Your task to perform on an android device: Go to Yahoo.com Image 0: 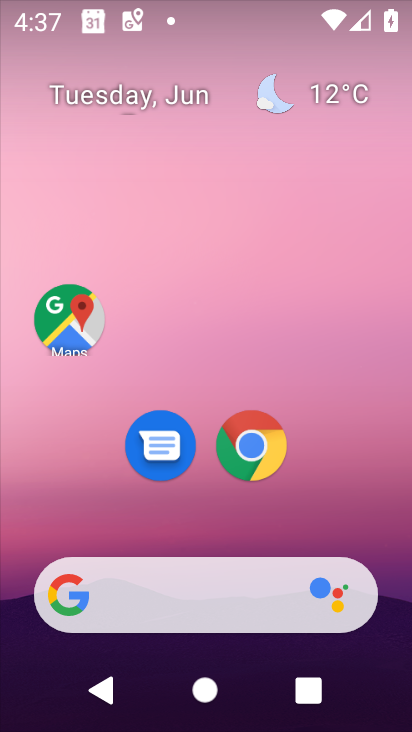
Step 0: drag from (326, 499) to (339, 3)
Your task to perform on an android device: Go to Yahoo.com Image 1: 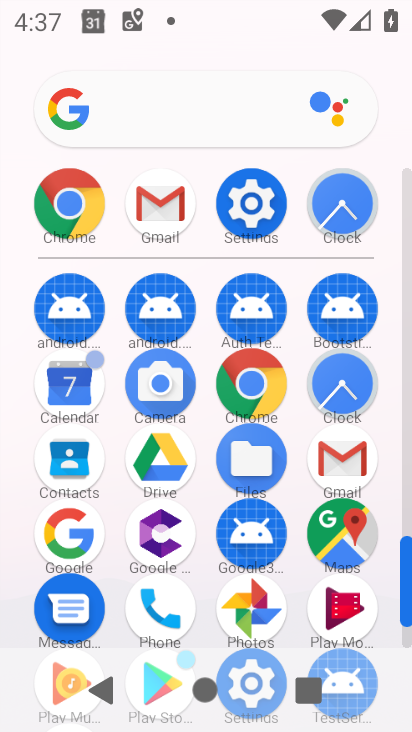
Step 1: click (75, 211)
Your task to perform on an android device: Go to Yahoo.com Image 2: 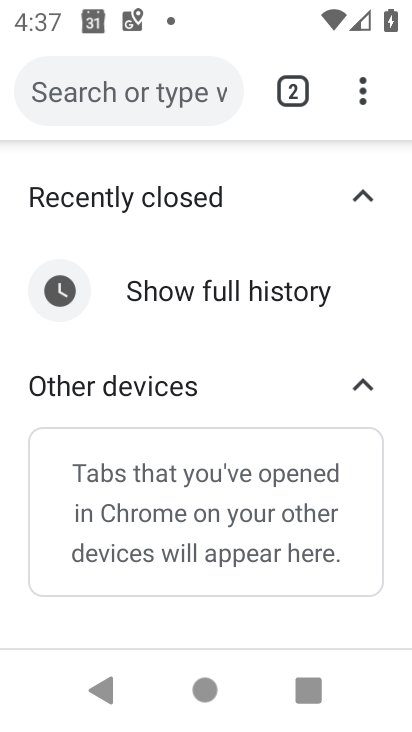
Step 2: click (175, 110)
Your task to perform on an android device: Go to Yahoo.com Image 3: 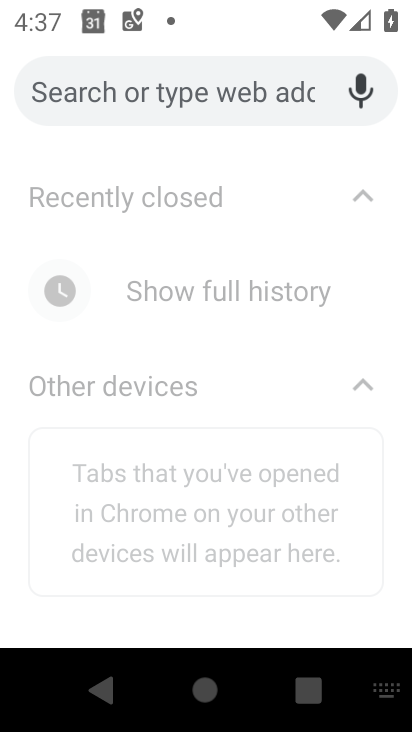
Step 3: type "Yahoo.com"
Your task to perform on an android device: Go to Yahoo.com Image 4: 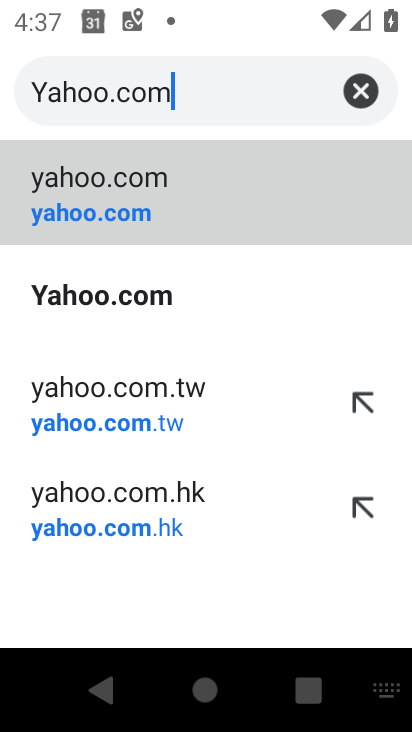
Step 4: click (121, 311)
Your task to perform on an android device: Go to Yahoo.com Image 5: 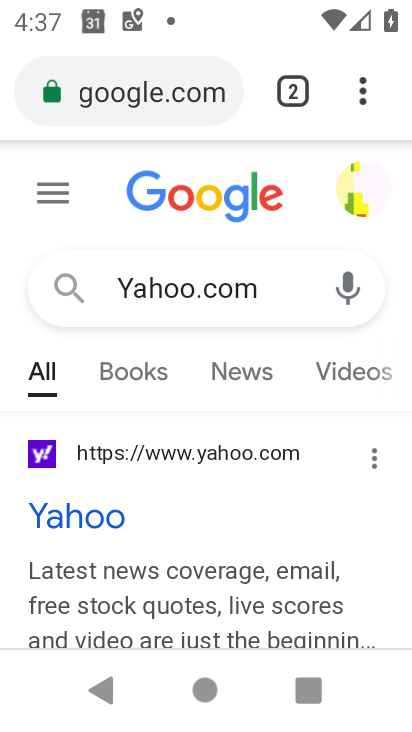
Step 5: click (67, 522)
Your task to perform on an android device: Go to Yahoo.com Image 6: 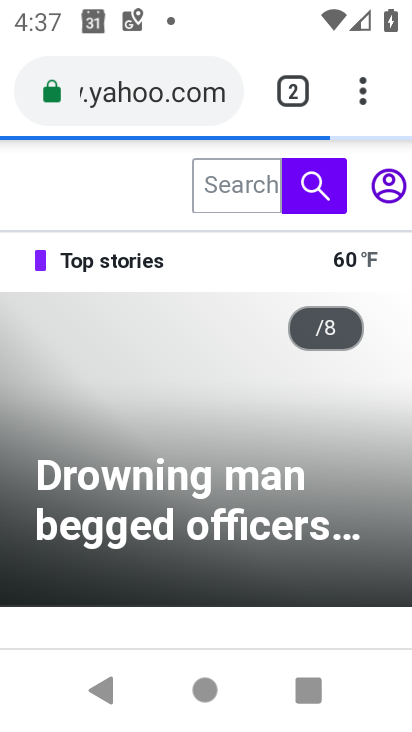
Step 6: task complete